Your task to perform on an android device: empty trash in the gmail app Image 0: 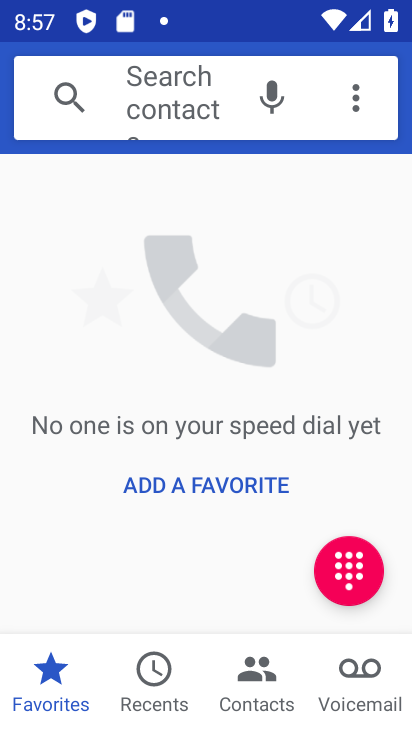
Step 0: press home button
Your task to perform on an android device: empty trash in the gmail app Image 1: 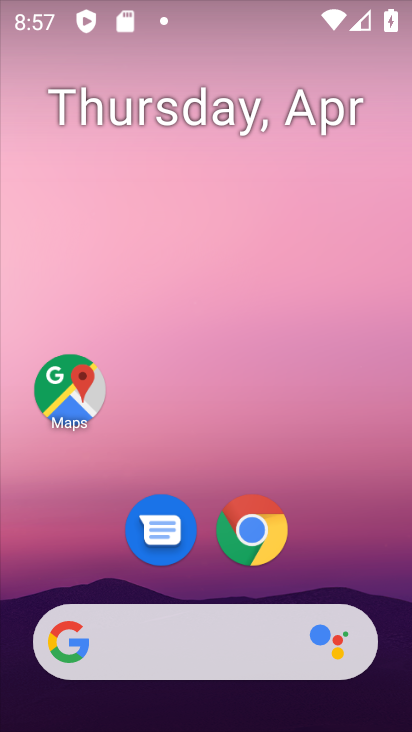
Step 1: drag from (355, 565) to (259, 23)
Your task to perform on an android device: empty trash in the gmail app Image 2: 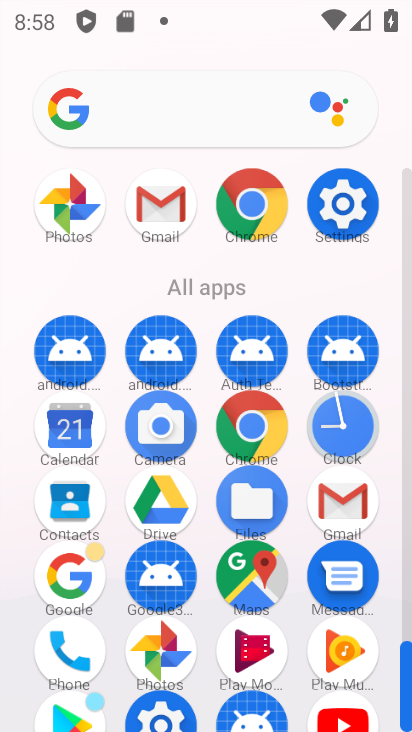
Step 2: click (331, 482)
Your task to perform on an android device: empty trash in the gmail app Image 3: 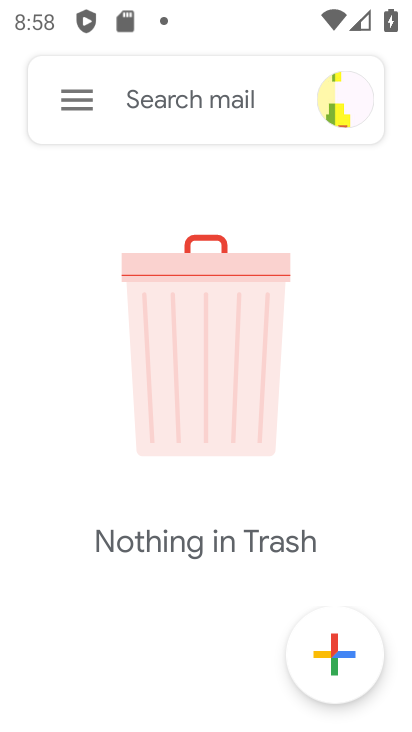
Step 3: task complete